Your task to perform on an android device: Open Chrome and go to settings Image 0: 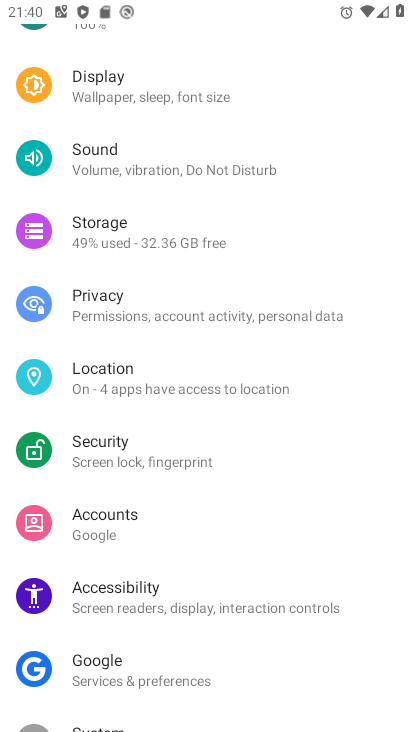
Step 0: press home button
Your task to perform on an android device: Open Chrome and go to settings Image 1: 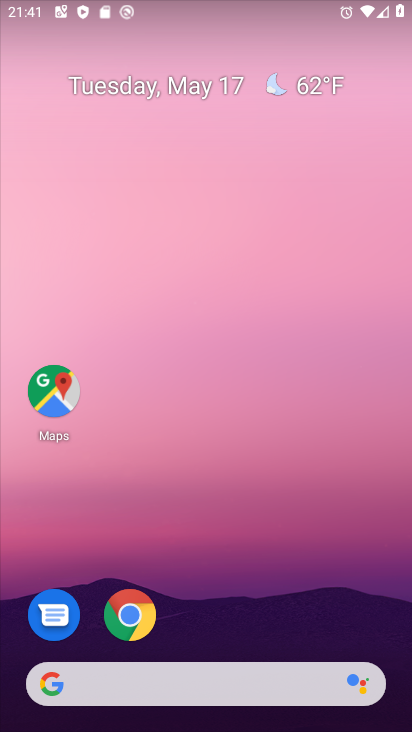
Step 1: click (140, 634)
Your task to perform on an android device: Open Chrome and go to settings Image 2: 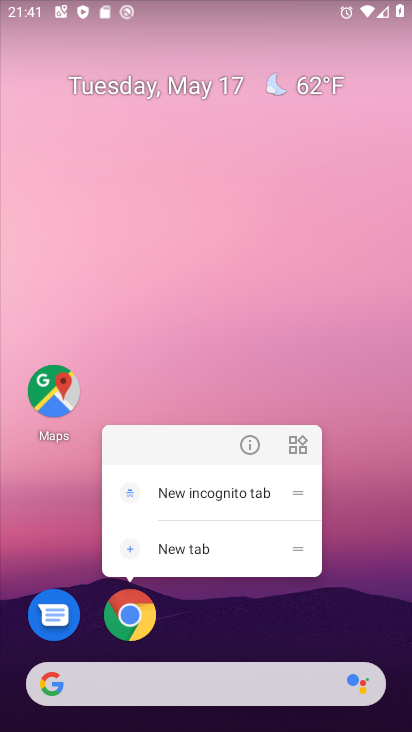
Step 2: click (115, 612)
Your task to perform on an android device: Open Chrome and go to settings Image 3: 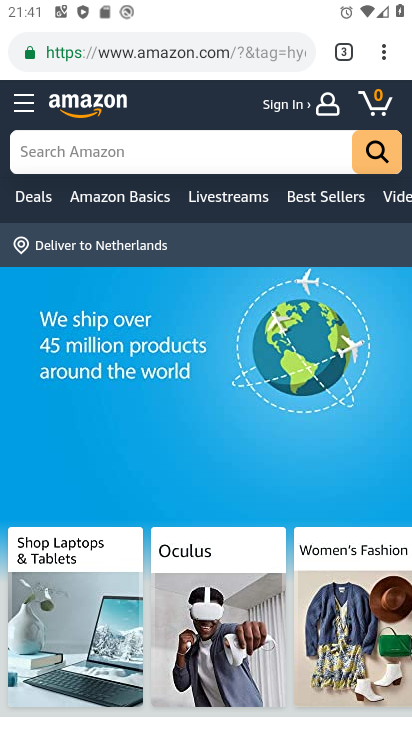
Step 3: task complete